Your task to perform on an android device: toggle show notifications on the lock screen Image 0: 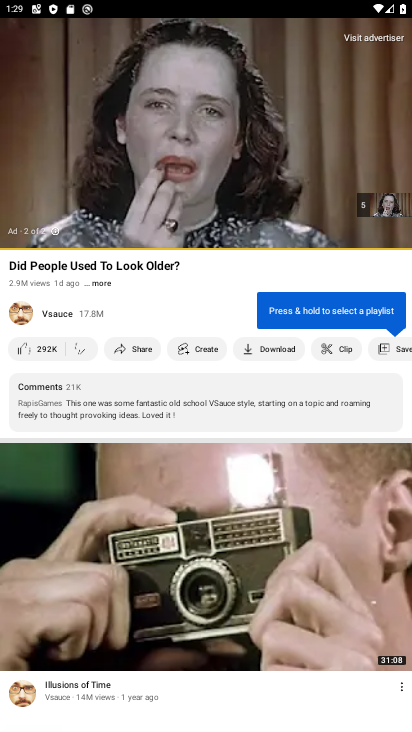
Step 0: press home button
Your task to perform on an android device: toggle show notifications on the lock screen Image 1: 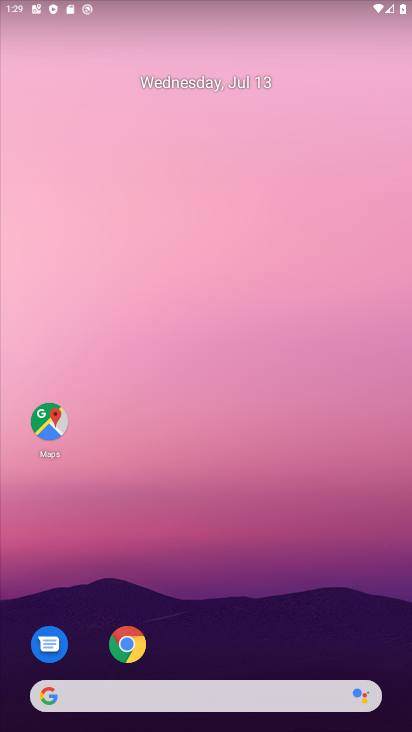
Step 1: drag from (295, 639) to (287, 61)
Your task to perform on an android device: toggle show notifications on the lock screen Image 2: 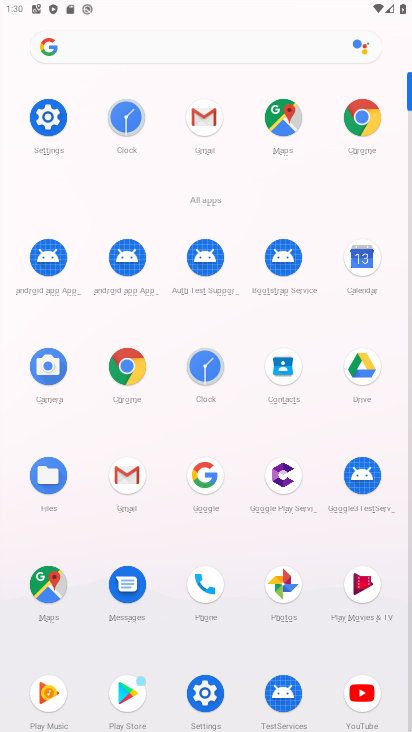
Step 2: click (44, 115)
Your task to perform on an android device: toggle show notifications on the lock screen Image 3: 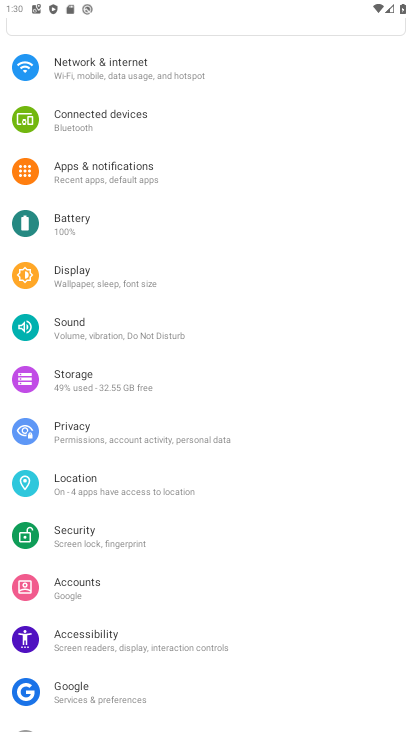
Step 3: click (108, 164)
Your task to perform on an android device: toggle show notifications on the lock screen Image 4: 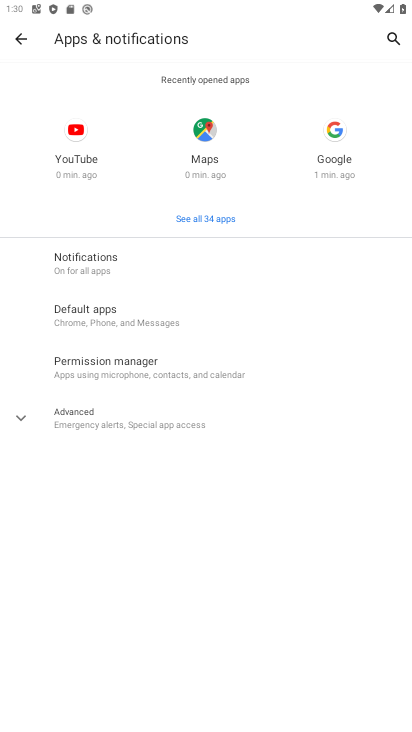
Step 4: click (92, 271)
Your task to perform on an android device: toggle show notifications on the lock screen Image 5: 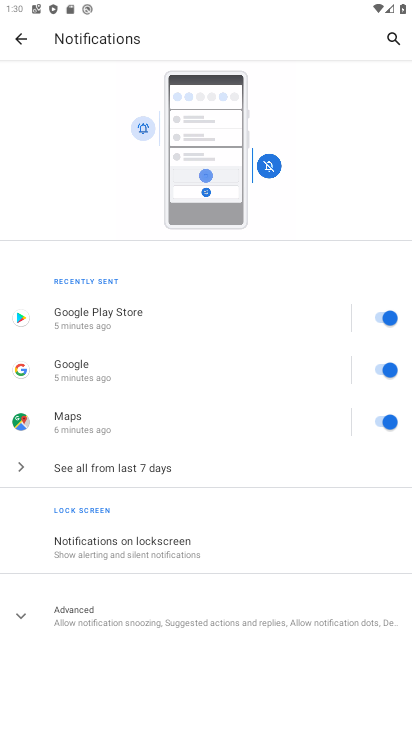
Step 5: click (136, 547)
Your task to perform on an android device: toggle show notifications on the lock screen Image 6: 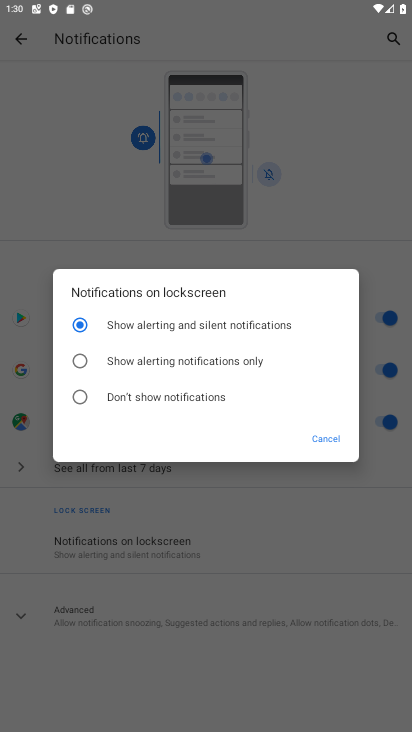
Step 6: click (163, 362)
Your task to perform on an android device: toggle show notifications on the lock screen Image 7: 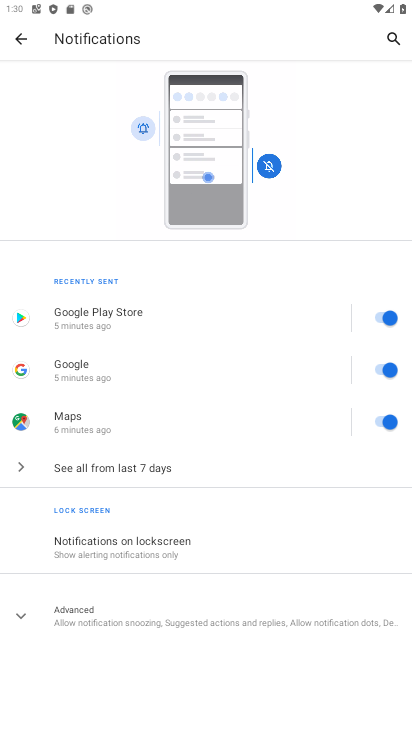
Step 7: task complete